Your task to perform on an android device: What is the recent news? Image 0: 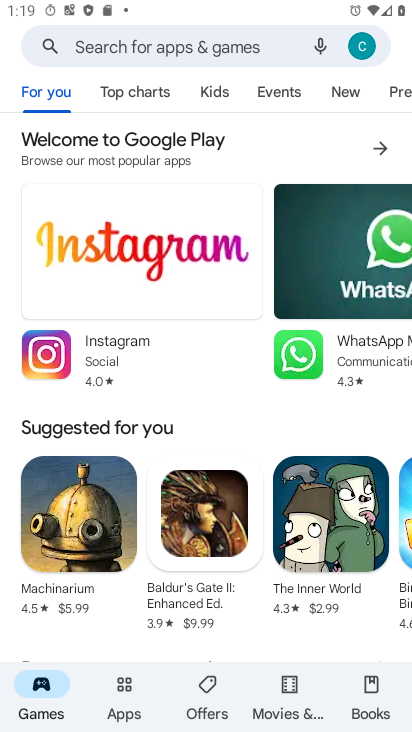
Step 0: press home button
Your task to perform on an android device: What is the recent news? Image 1: 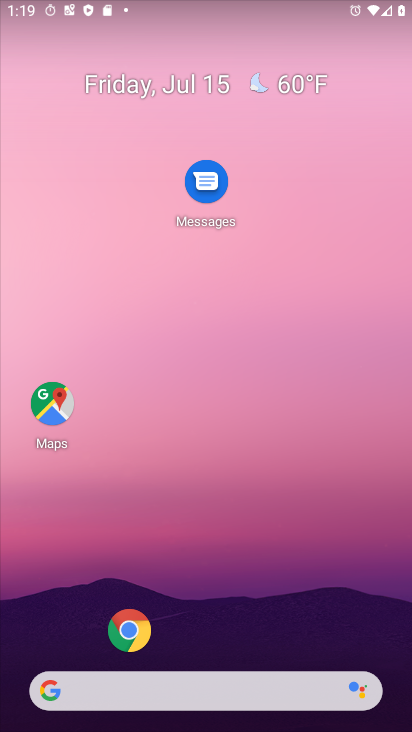
Step 1: click (83, 696)
Your task to perform on an android device: What is the recent news? Image 2: 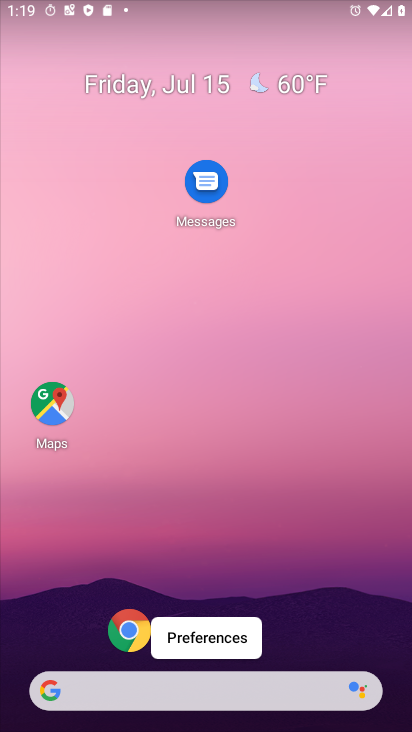
Step 2: click (87, 691)
Your task to perform on an android device: What is the recent news? Image 3: 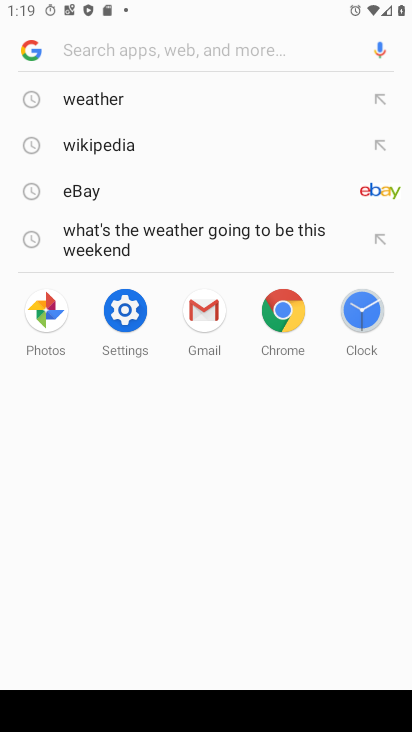
Step 3: click (88, 685)
Your task to perform on an android device: What is the recent news? Image 4: 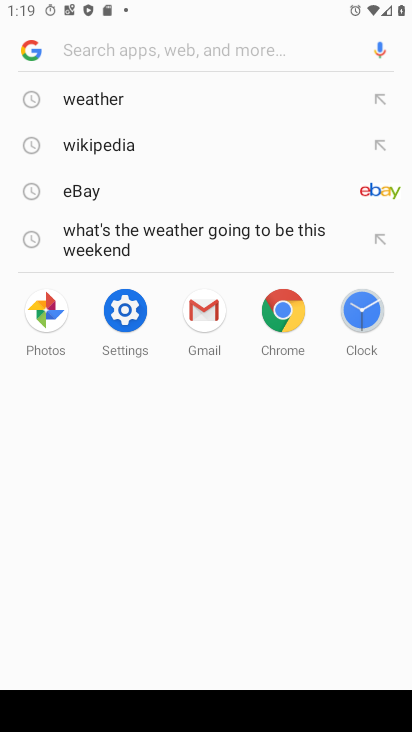
Step 4: type "What is the recent news?"
Your task to perform on an android device: What is the recent news? Image 5: 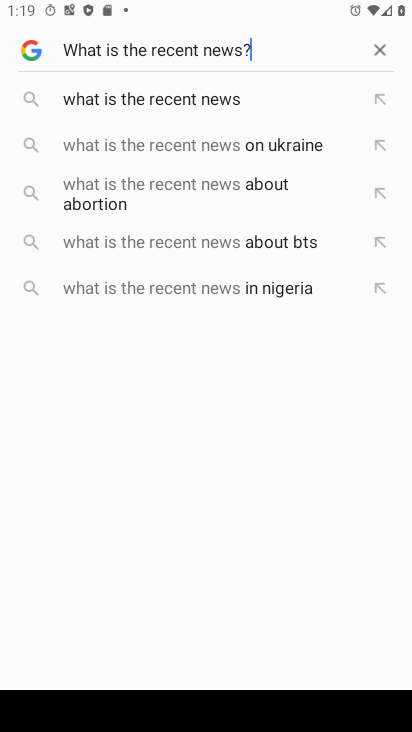
Step 5: type ""
Your task to perform on an android device: What is the recent news? Image 6: 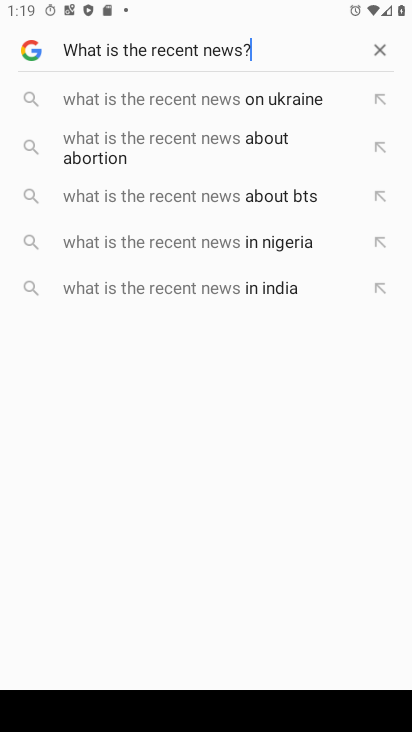
Step 6: type ""
Your task to perform on an android device: What is the recent news? Image 7: 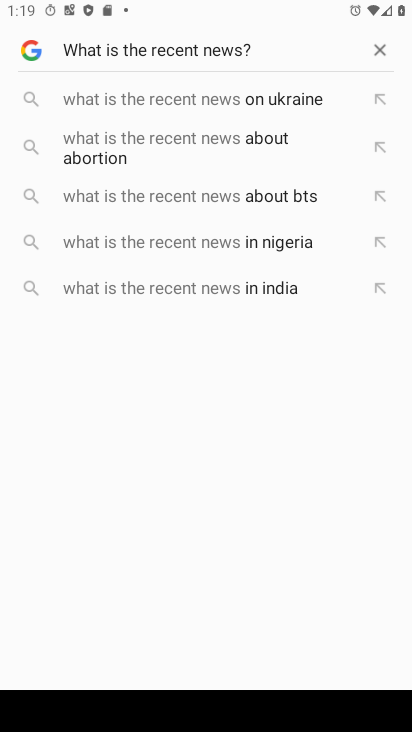
Step 7: task complete